Your task to perform on an android device: install app "Lyft - Rideshare, Bikes, Scooters & Transit" Image 0: 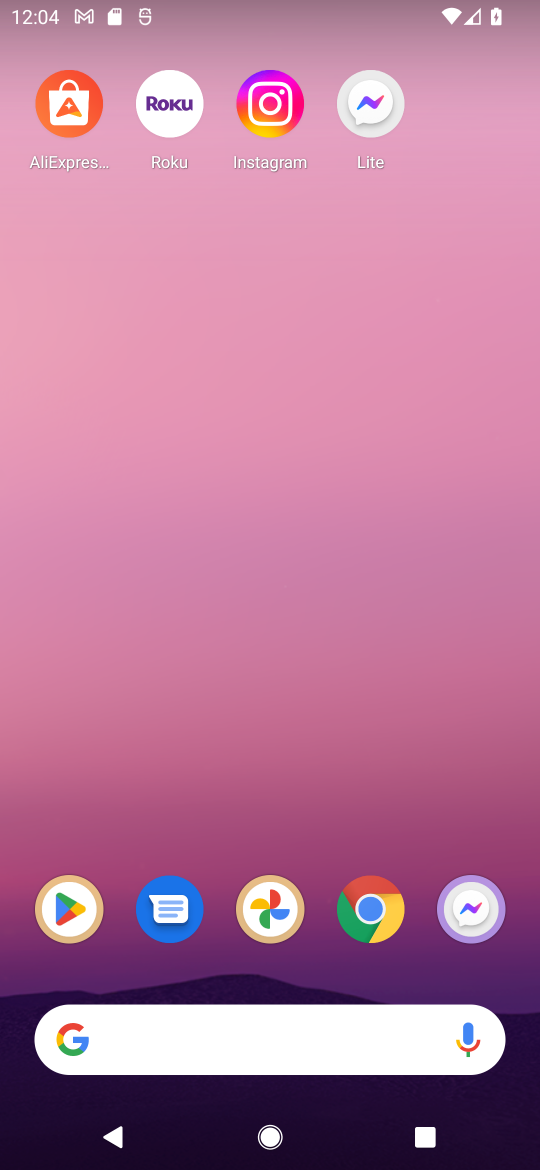
Step 0: press home button
Your task to perform on an android device: install app "Lyft - Rideshare, Bikes, Scooters & Transit" Image 1: 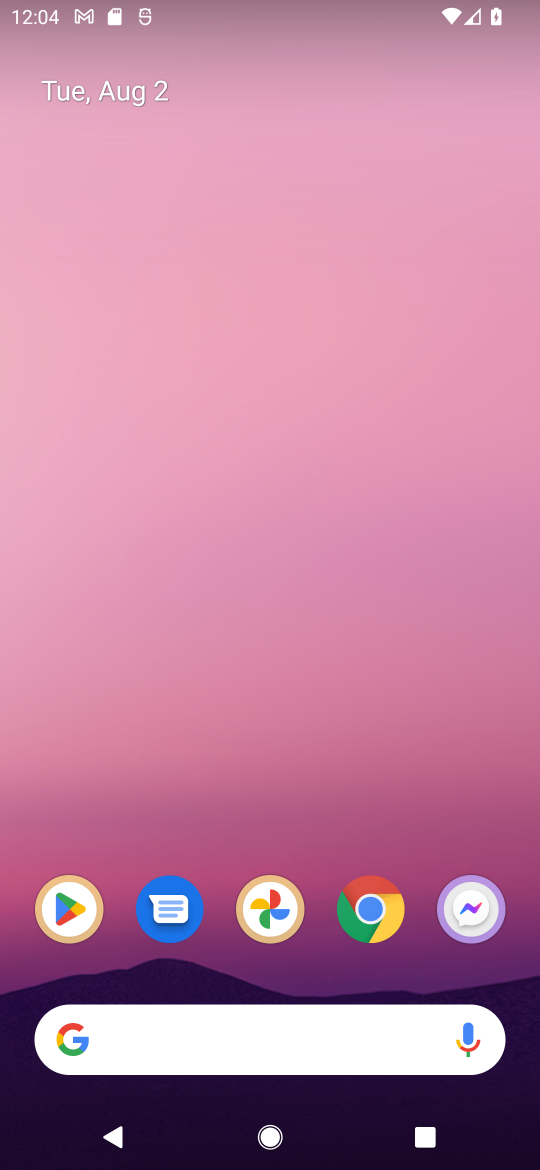
Step 1: click (86, 897)
Your task to perform on an android device: install app "Lyft - Rideshare, Bikes, Scooters & Transit" Image 2: 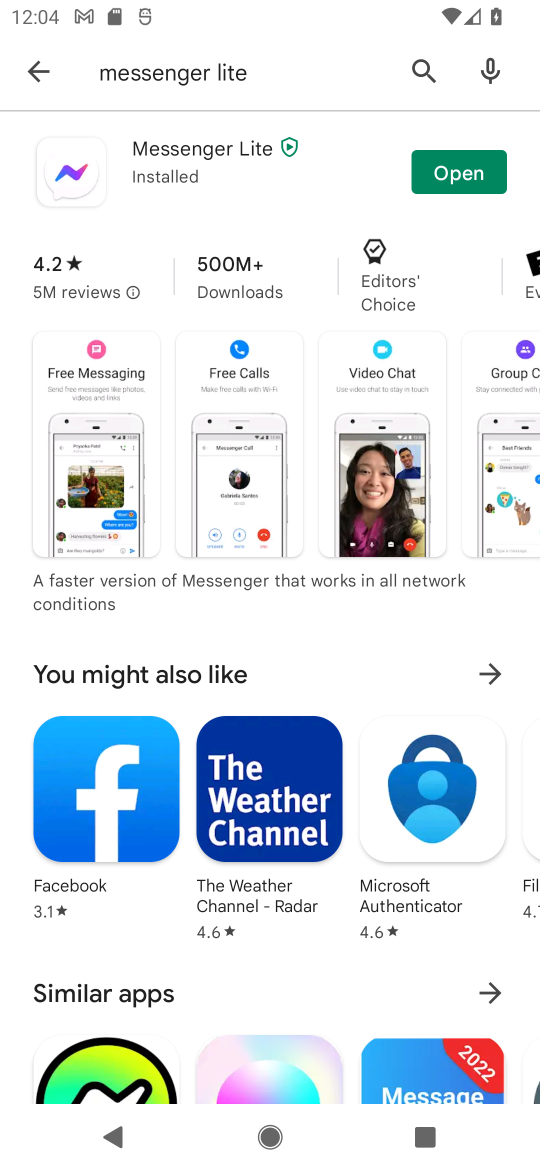
Step 2: click (434, 68)
Your task to perform on an android device: install app "Lyft - Rideshare, Bikes, Scooters & Transit" Image 3: 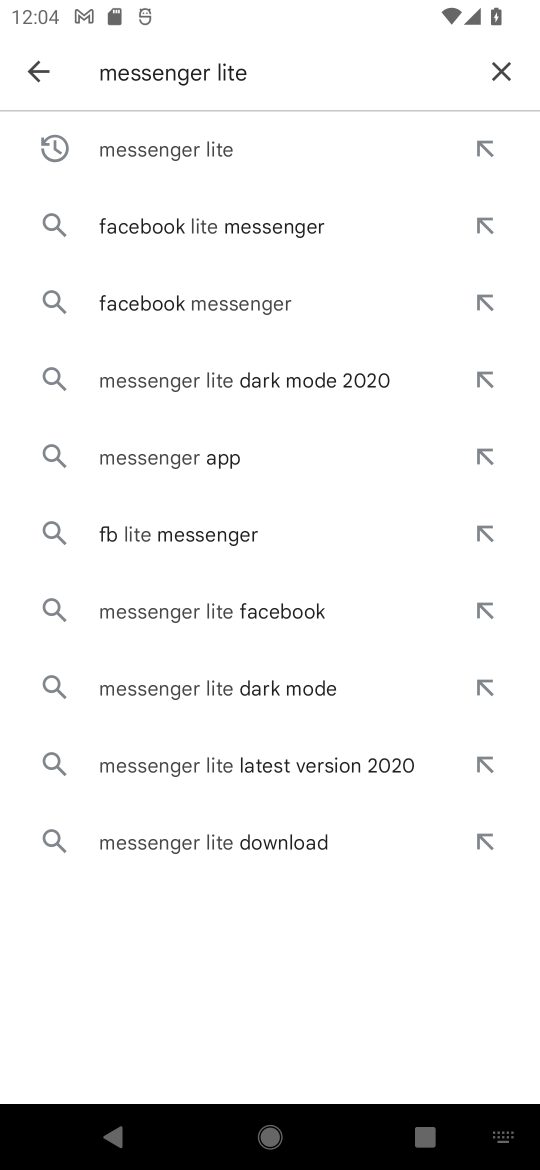
Step 3: click (496, 67)
Your task to perform on an android device: install app "Lyft - Rideshare, Bikes, Scooters & Transit" Image 4: 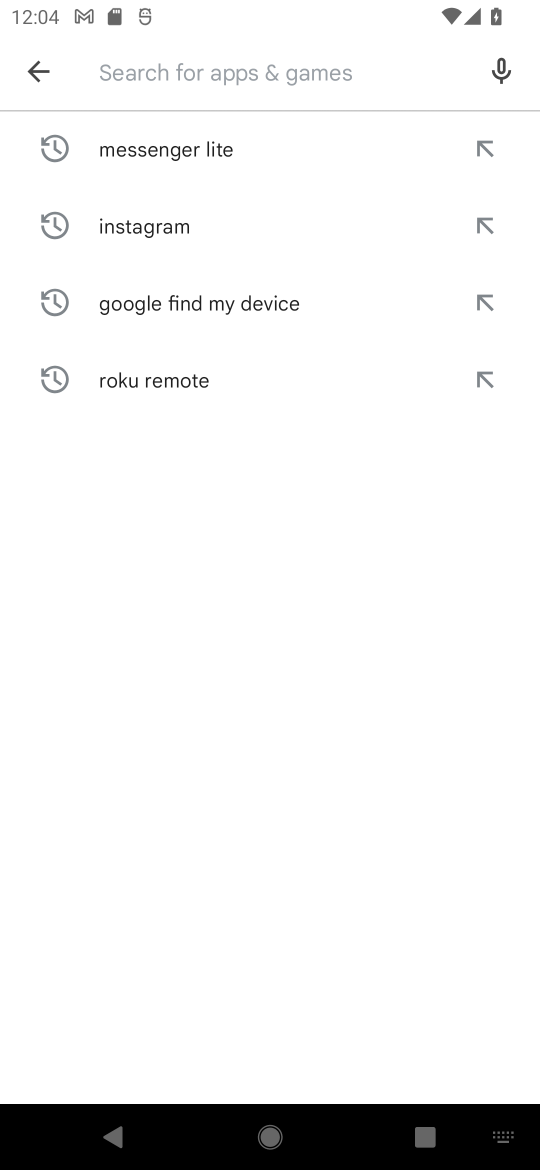
Step 4: type "Lyft"
Your task to perform on an android device: install app "Lyft - Rideshare, Bikes, Scooters & Transit" Image 5: 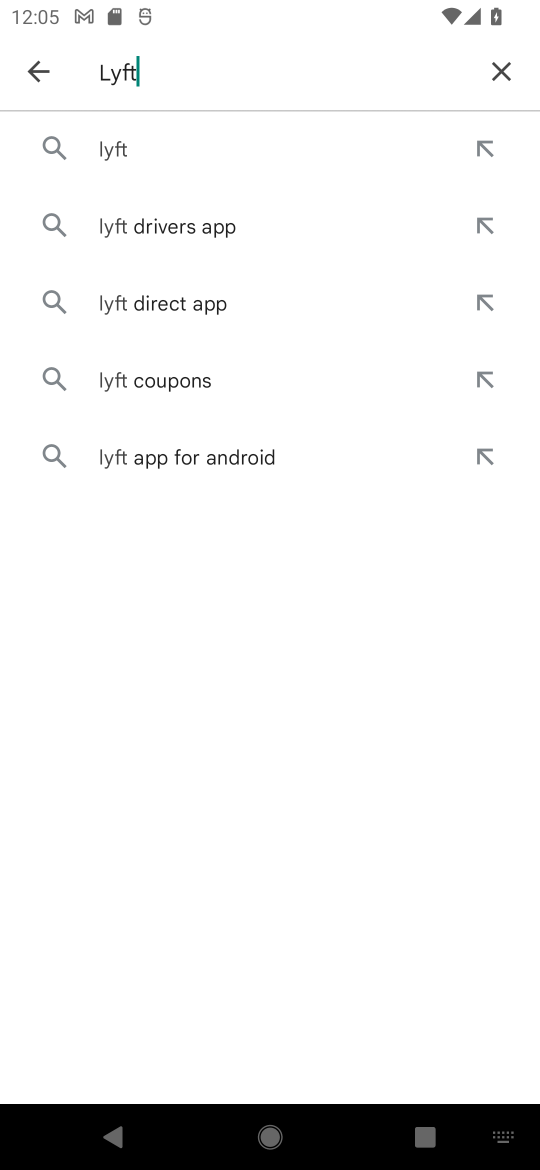
Step 5: click (117, 148)
Your task to perform on an android device: install app "Lyft - Rideshare, Bikes, Scooters & Transit" Image 6: 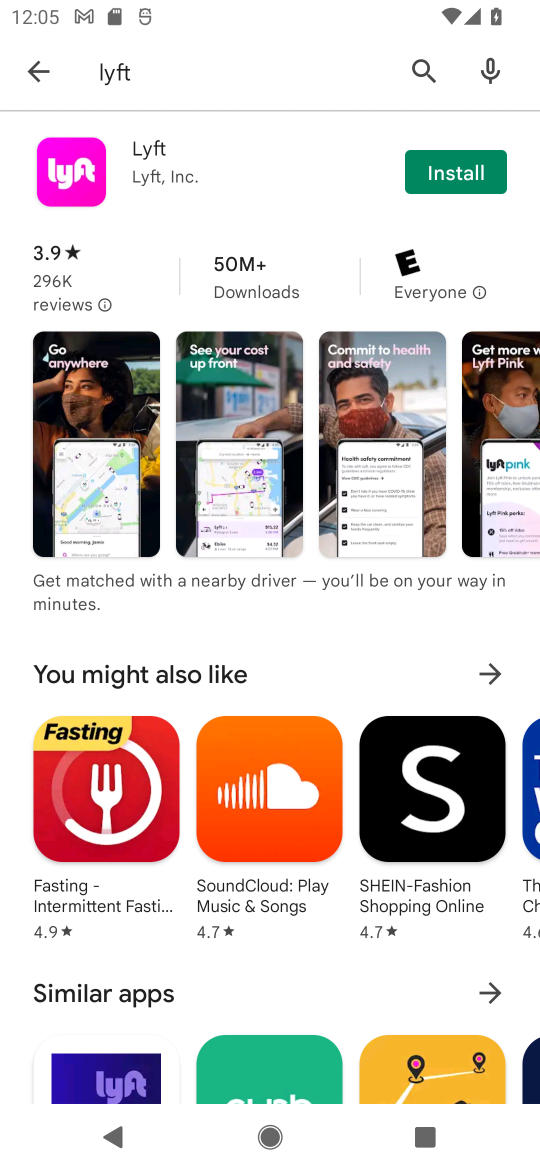
Step 6: click (444, 188)
Your task to perform on an android device: install app "Lyft - Rideshare, Bikes, Scooters & Transit" Image 7: 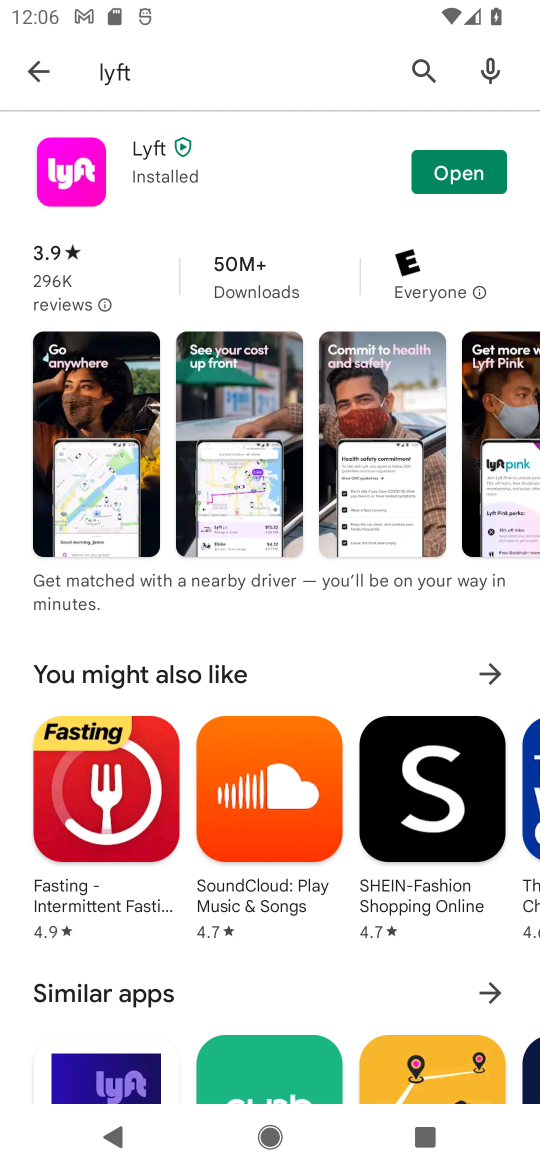
Step 7: task complete